Your task to perform on an android device: open a bookmark in the chrome app Image 0: 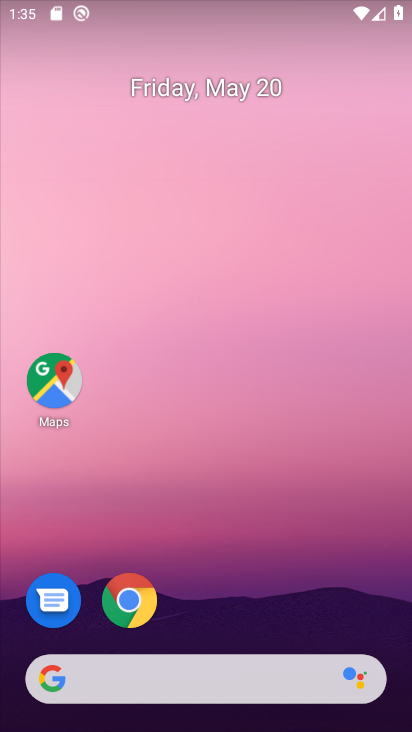
Step 0: click (135, 603)
Your task to perform on an android device: open a bookmark in the chrome app Image 1: 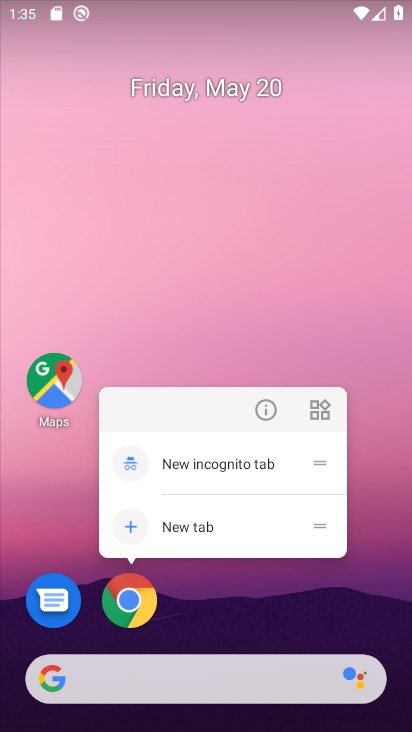
Step 1: click (127, 587)
Your task to perform on an android device: open a bookmark in the chrome app Image 2: 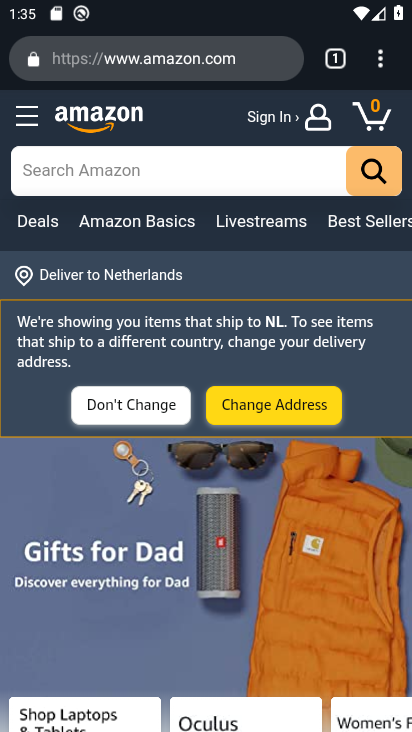
Step 2: click (384, 64)
Your task to perform on an android device: open a bookmark in the chrome app Image 3: 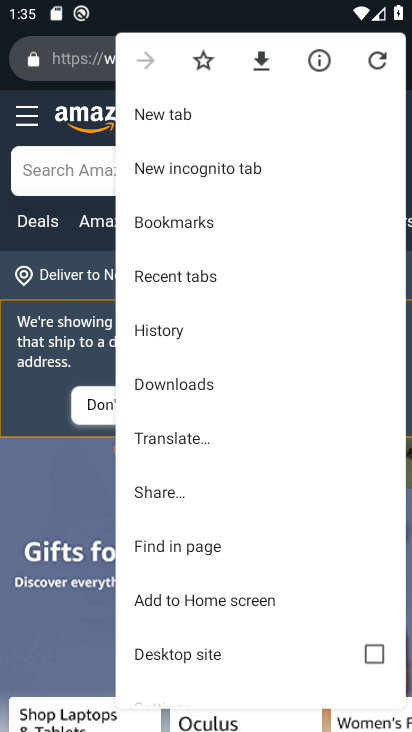
Step 3: drag from (227, 619) to (234, 318)
Your task to perform on an android device: open a bookmark in the chrome app Image 4: 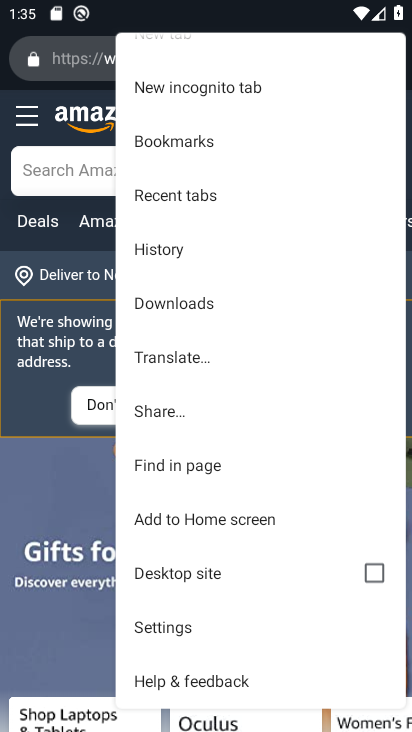
Step 4: click (193, 142)
Your task to perform on an android device: open a bookmark in the chrome app Image 5: 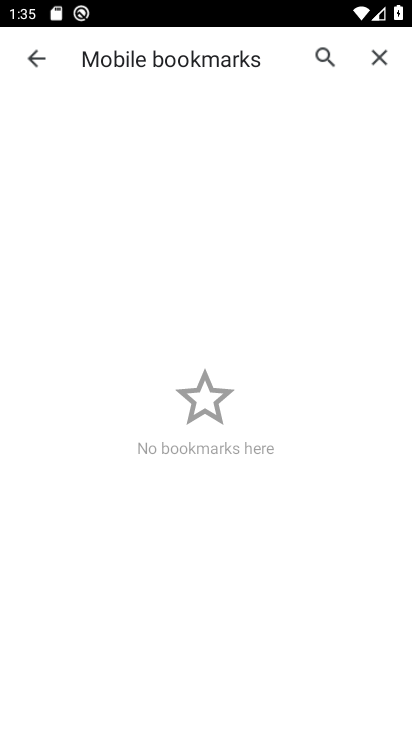
Step 5: task complete